Your task to perform on an android device: Open calendar and show me the second week of next month Image 0: 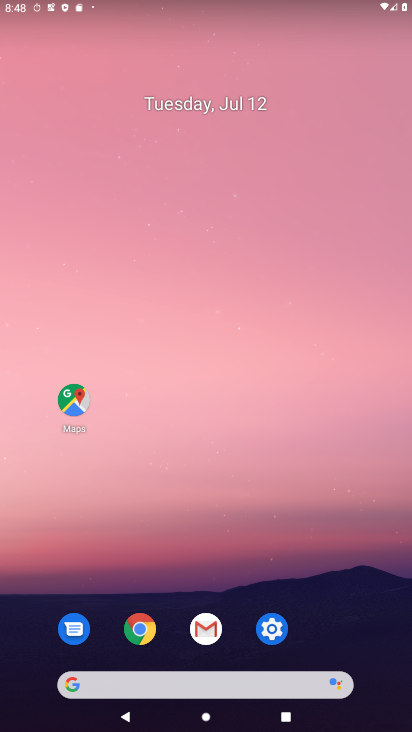
Step 0: drag from (314, 708) to (250, 283)
Your task to perform on an android device: Open calendar and show me the second week of next month Image 1: 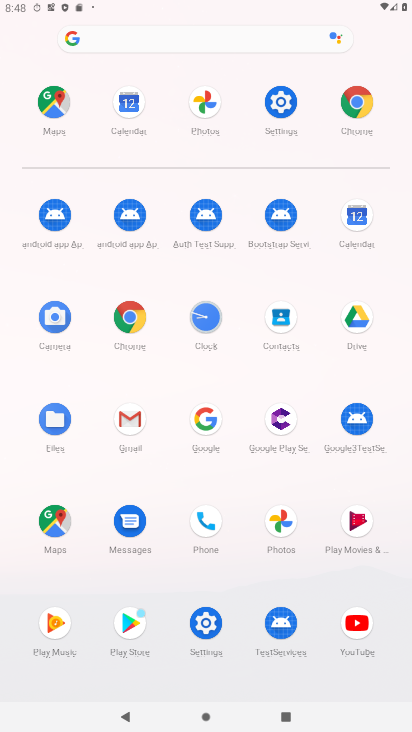
Step 1: click (351, 217)
Your task to perform on an android device: Open calendar and show me the second week of next month Image 2: 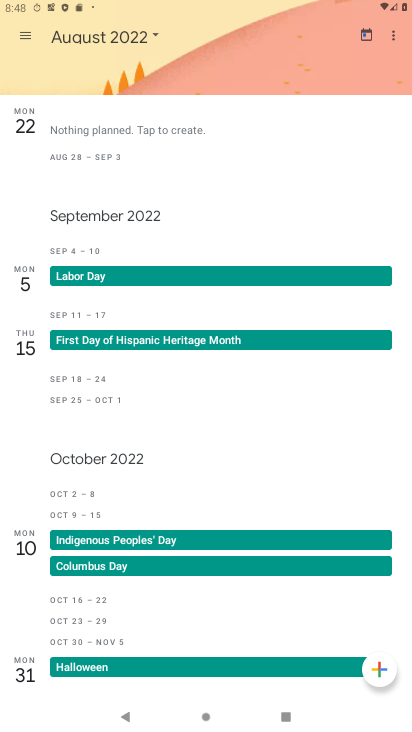
Step 2: click (17, 40)
Your task to perform on an android device: Open calendar and show me the second week of next month Image 3: 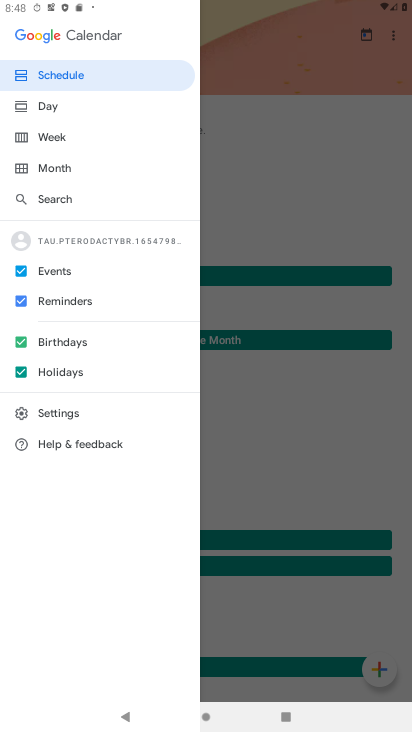
Step 3: click (49, 180)
Your task to perform on an android device: Open calendar and show me the second week of next month Image 4: 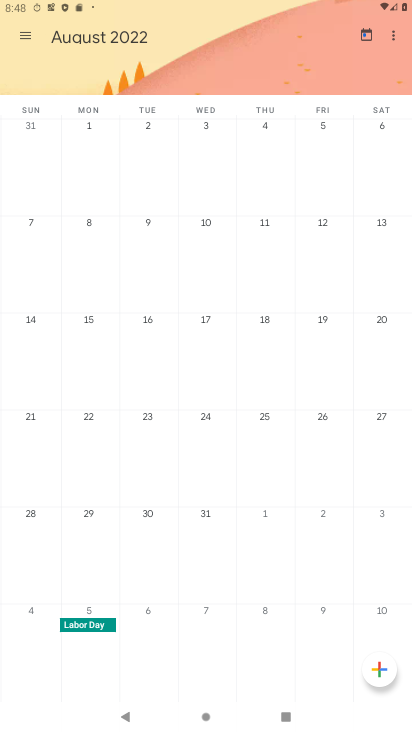
Step 4: click (79, 248)
Your task to perform on an android device: Open calendar and show me the second week of next month Image 5: 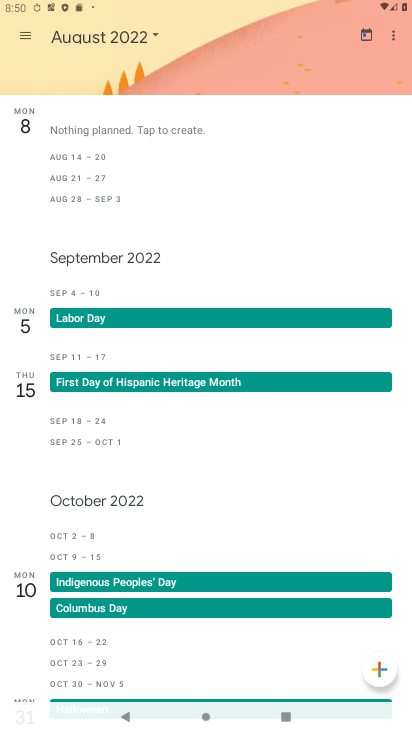
Step 5: task complete